Your task to perform on an android device: toggle notification dots Image 0: 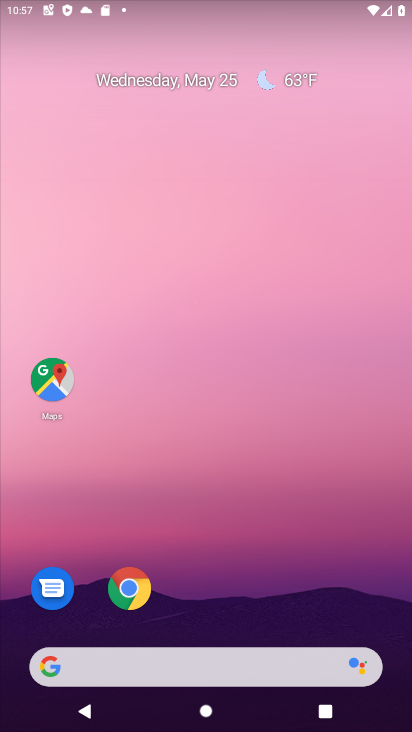
Step 0: drag from (334, 605) to (367, 34)
Your task to perform on an android device: toggle notification dots Image 1: 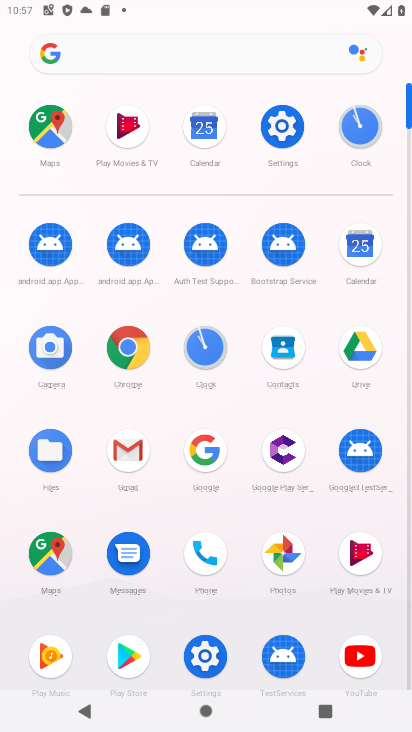
Step 1: click (283, 131)
Your task to perform on an android device: toggle notification dots Image 2: 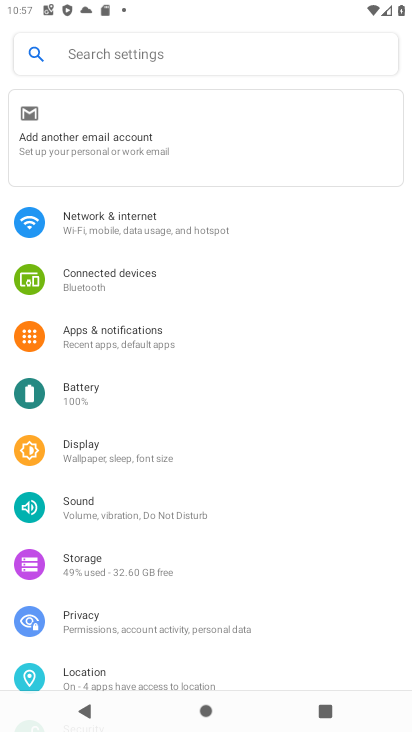
Step 2: click (196, 342)
Your task to perform on an android device: toggle notification dots Image 3: 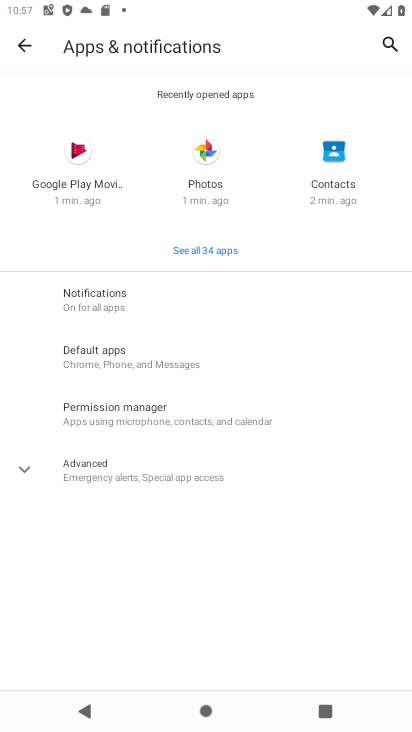
Step 3: click (238, 291)
Your task to perform on an android device: toggle notification dots Image 4: 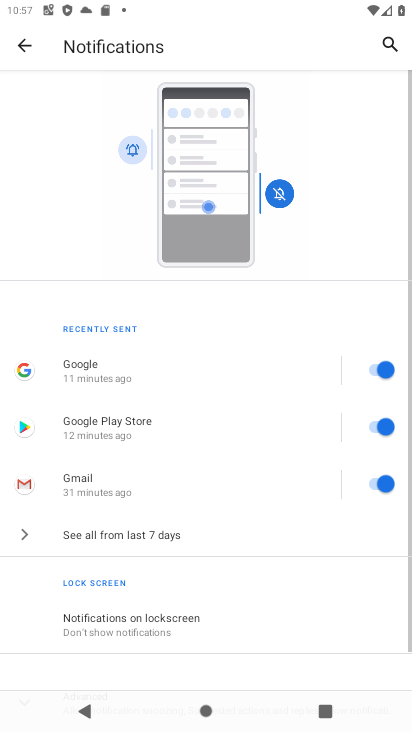
Step 4: drag from (203, 611) to (166, 312)
Your task to perform on an android device: toggle notification dots Image 5: 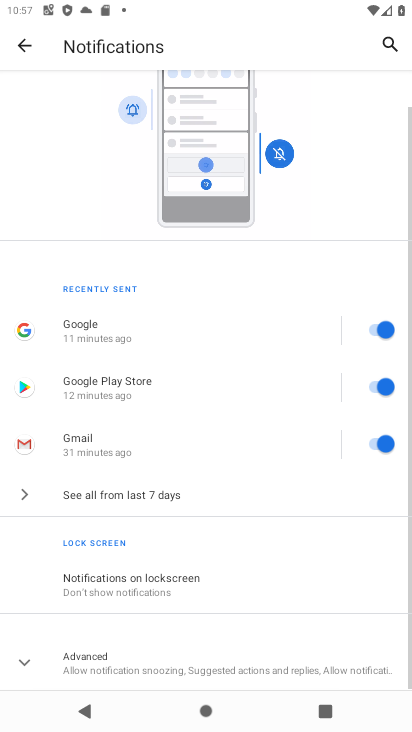
Step 5: click (143, 686)
Your task to perform on an android device: toggle notification dots Image 6: 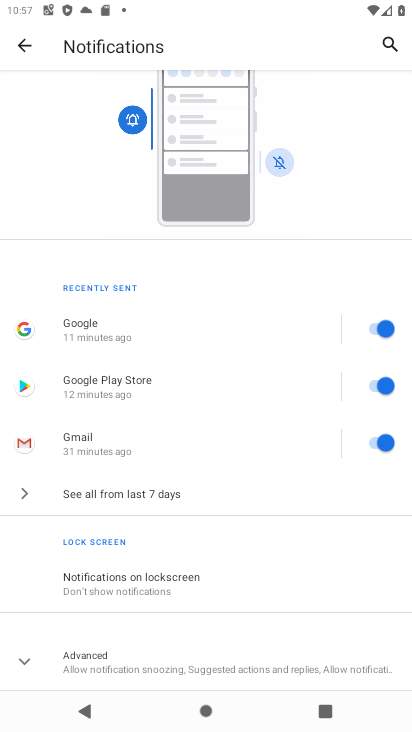
Step 6: click (151, 648)
Your task to perform on an android device: toggle notification dots Image 7: 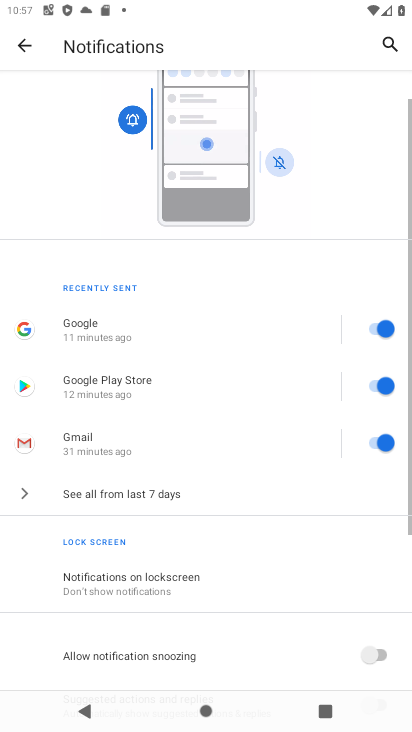
Step 7: drag from (164, 655) to (221, 167)
Your task to perform on an android device: toggle notification dots Image 8: 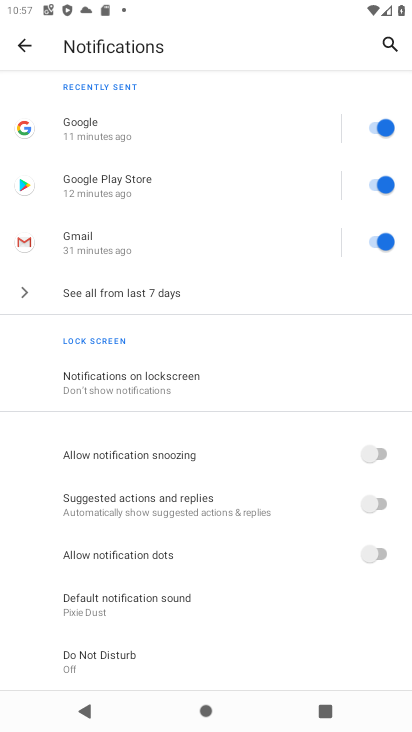
Step 8: click (371, 548)
Your task to perform on an android device: toggle notification dots Image 9: 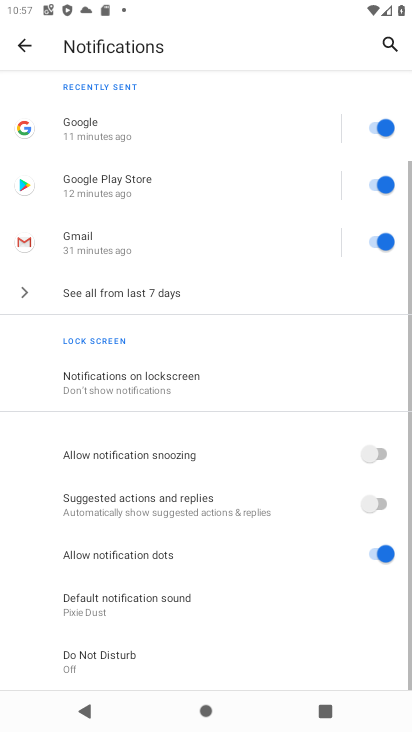
Step 9: task complete